Your task to perform on an android device: toggle pop-ups in chrome Image 0: 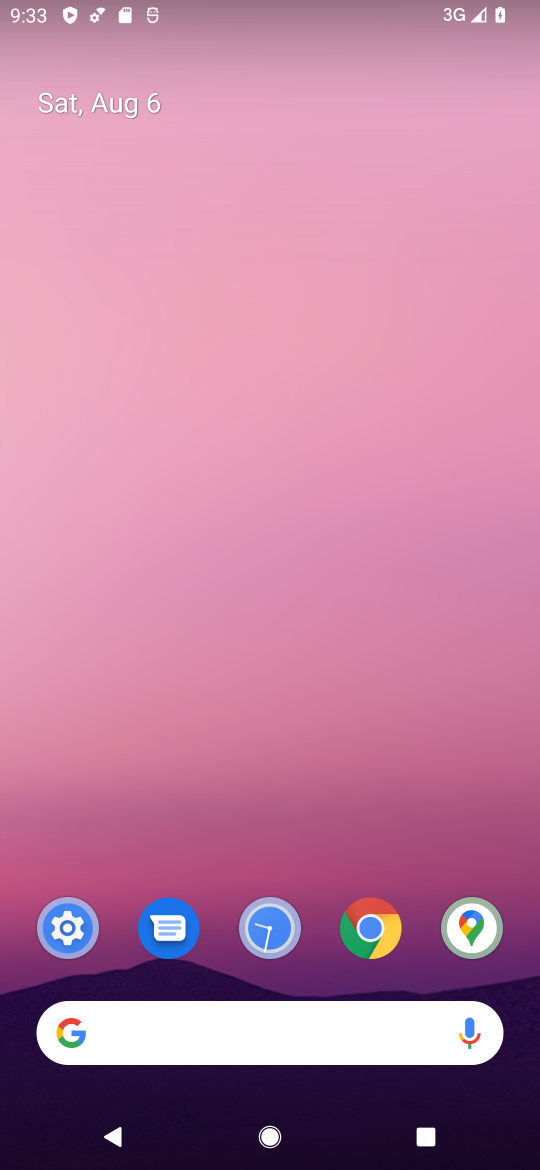
Step 0: click (367, 929)
Your task to perform on an android device: toggle pop-ups in chrome Image 1: 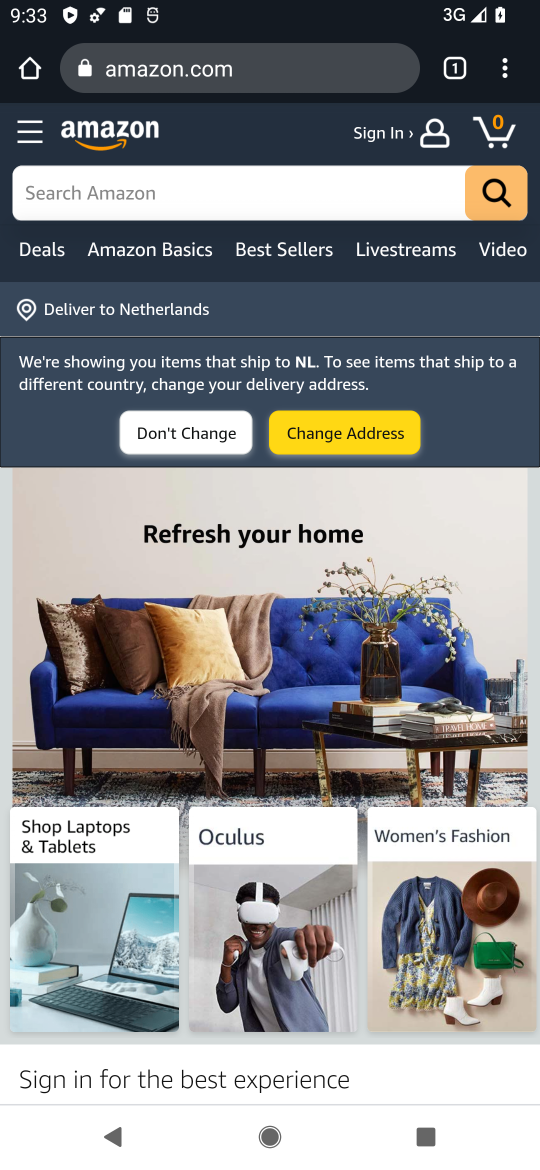
Step 1: click (512, 63)
Your task to perform on an android device: toggle pop-ups in chrome Image 2: 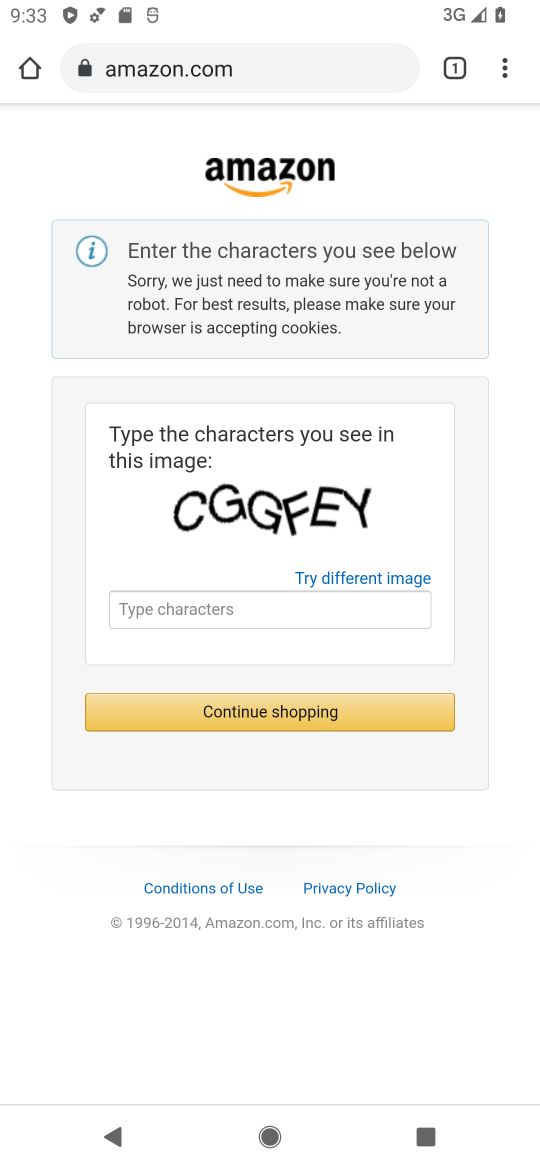
Step 2: click (502, 49)
Your task to perform on an android device: toggle pop-ups in chrome Image 3: 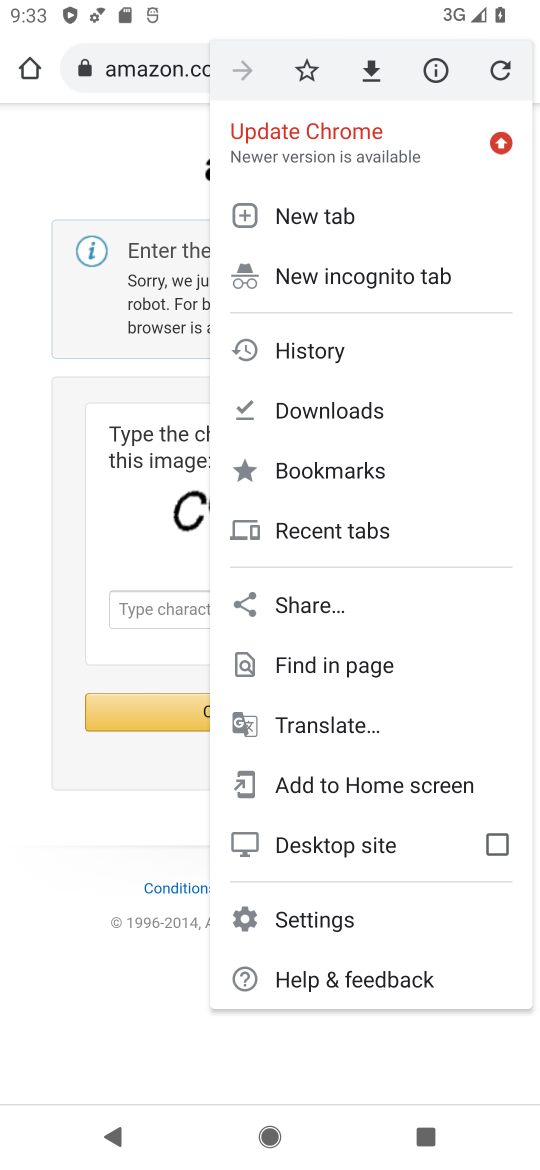
Step 3: click (319, 919)
Your task to perform on an android device: toggle pop-ups in chrome Image 4: 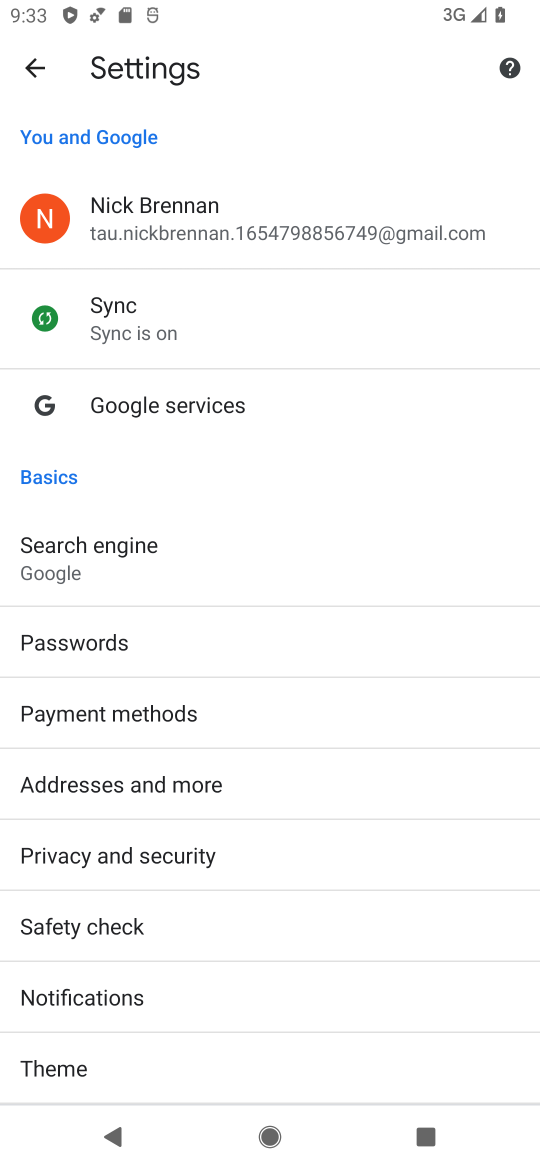
Step 4: drag from (275, 987) to (271, 442)
Your task to perform on an android device: toggle pop-ups in chrome Image 5: 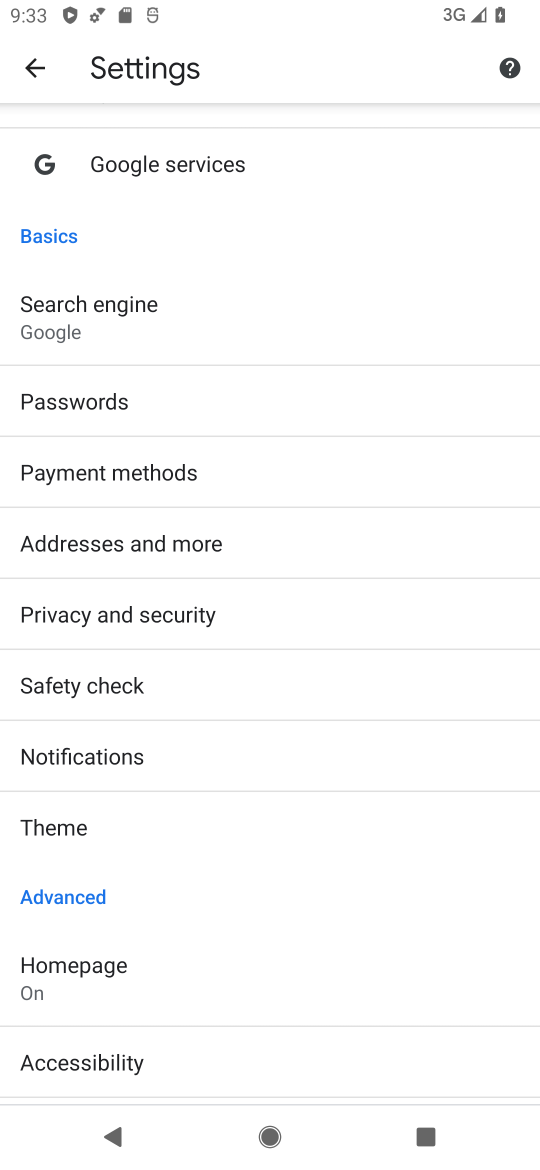
Step 5: drag from (229, 955) to (211, 432)
Your task to perform on an android device: toggle pop-ups in chrome Image 6: 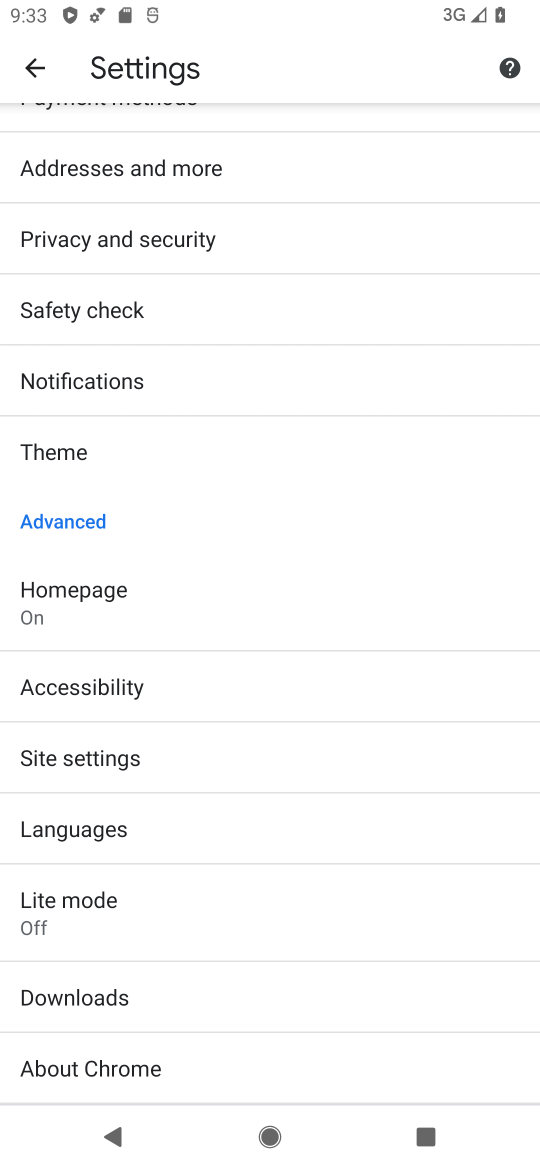
Step 6: click (83, 753)
Your task to perform on an android device: toggle pop-ups in chrome Image 7: 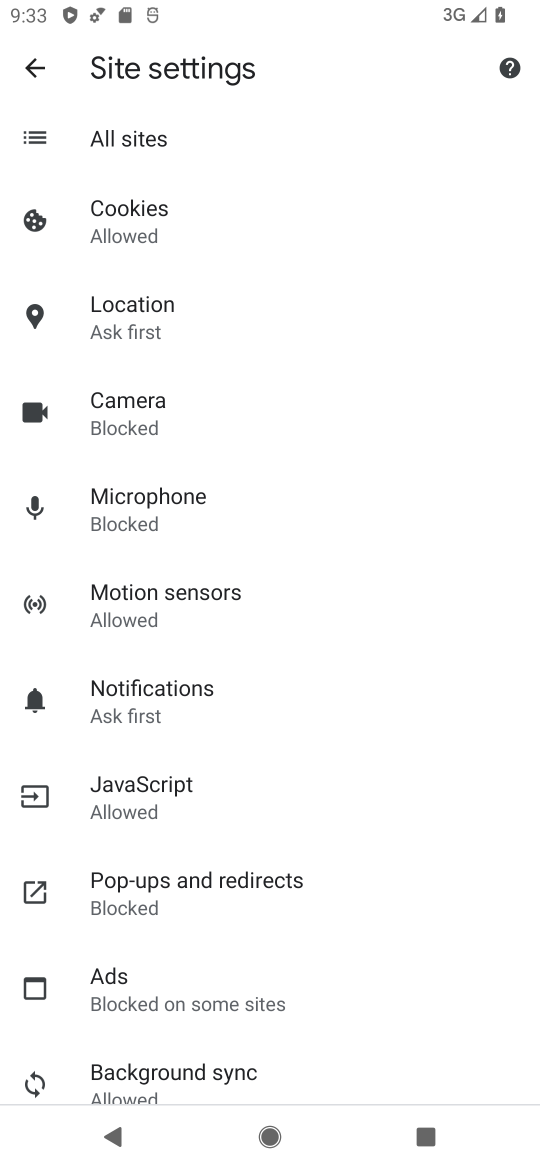
Step 7: click (136, 867)
Your task to perform on an android device: toggle pop-ups in chrome Image 8: 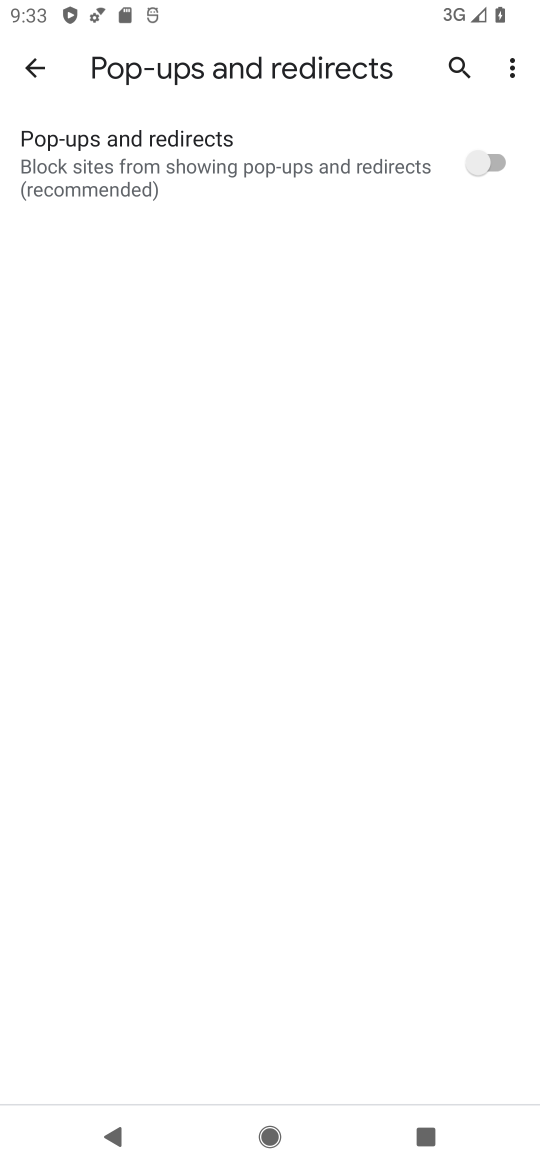
Step 8: click (471, 154)
Your task to perform on an android device: toggle pop-ups in chrome Image 9: 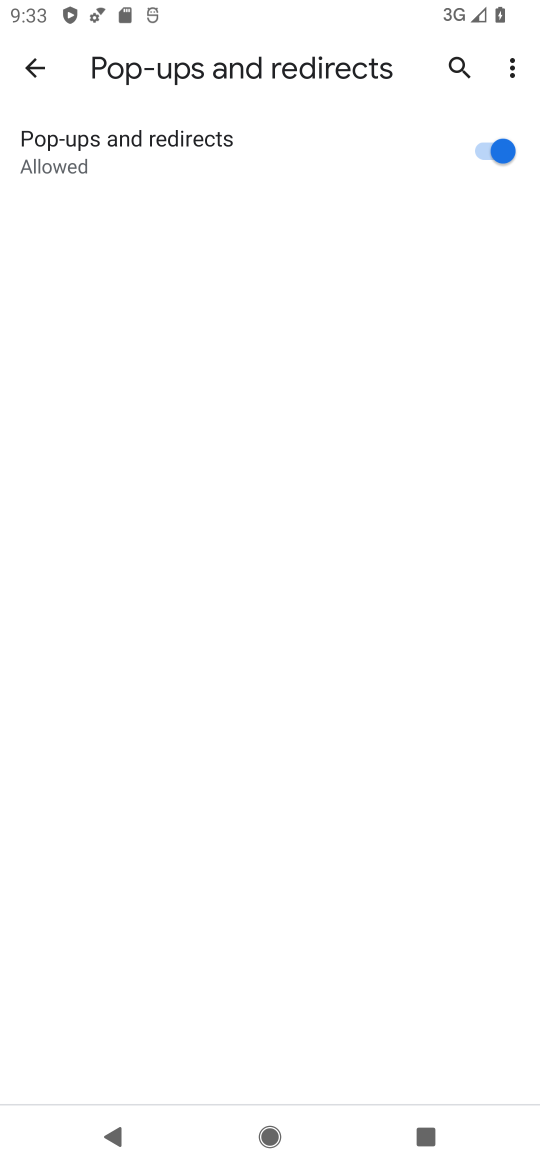
Step 9: task complete